Your task to perform on an android device: Open Yahoo.com Image 0: 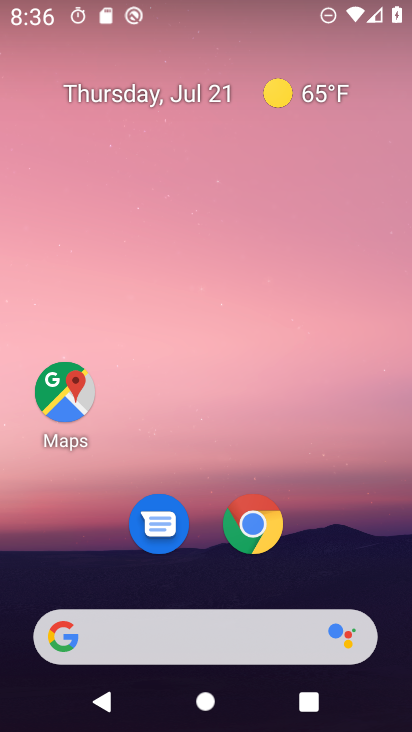
Step 0: click (265, 550)
Your task to perform on an android device: Open Yahoo.com Image 1: 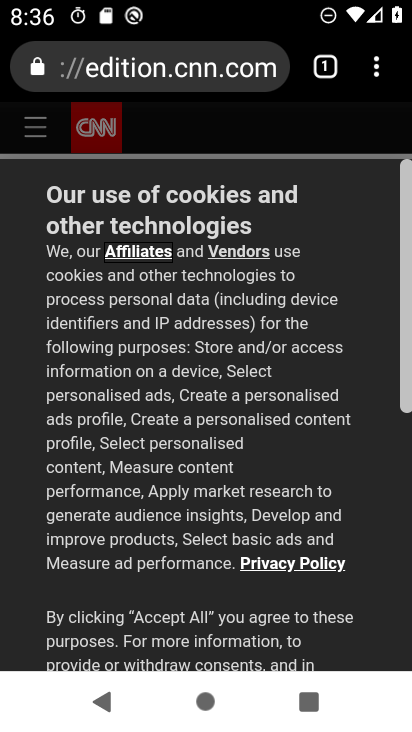
Step 1: click (179, 72)
Your task to perform on an android device: Open Yahoo.com Image 2: 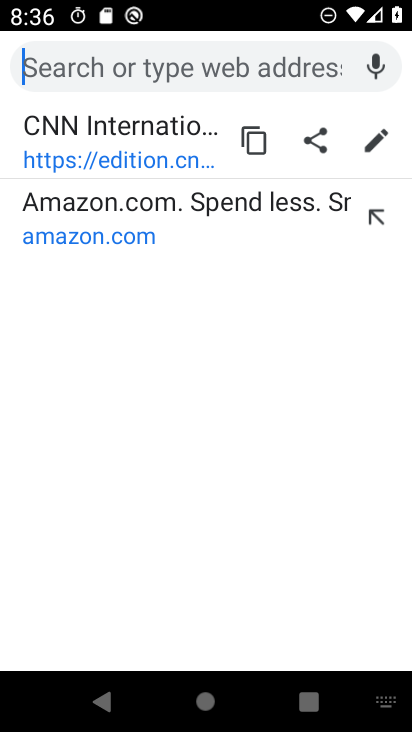
Step 2: type "yahoo.com"
Your task to perform on an android device: Open Yahoo.com Image 3: 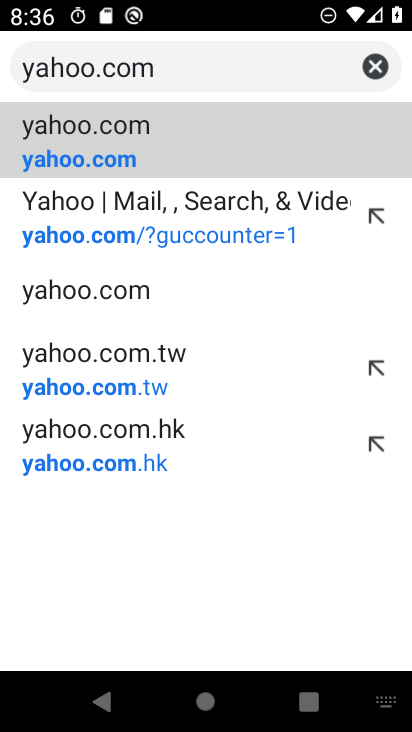
Step 3: click (217, 150)
Your task to perform on an android device: Open Yahoo.com Image 4: 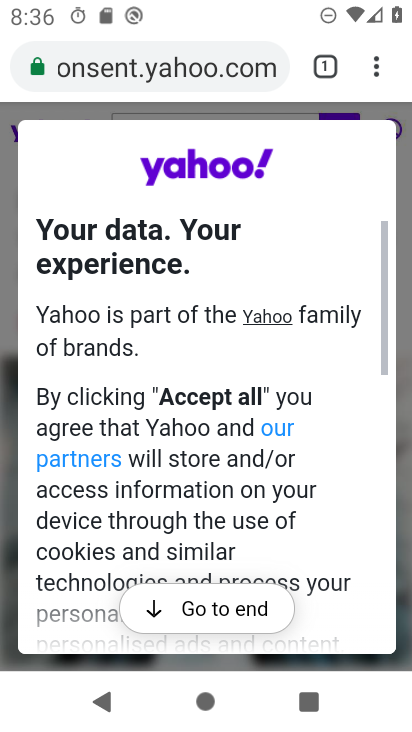
Step 4: task complete